Your task to perform on an android device: open app "Google Pay: Save, Pay, Manage" (install if not already installed) Image 0: 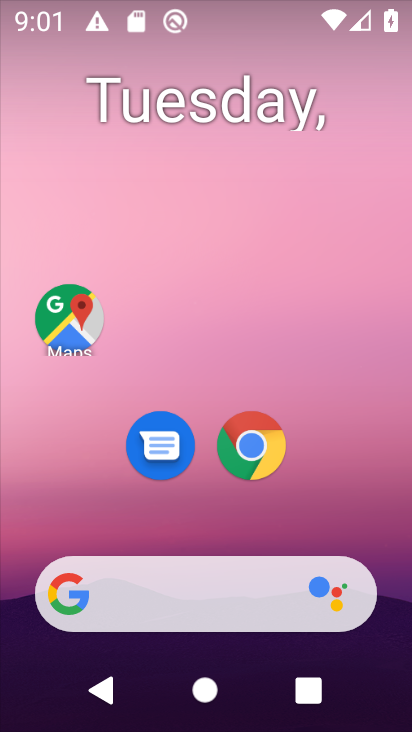
Step 0: click (203, 231)
Your task to perform on an android device: open app "Google Pay: Save, Pay, Manage" (install if not already installed) Image 1: 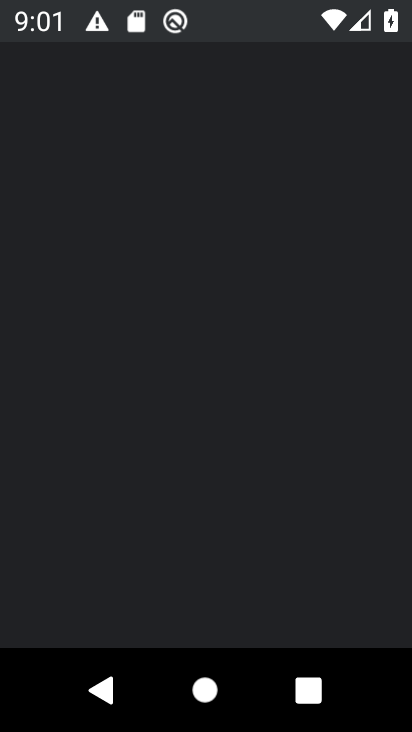
Step 1: press home button
Your task to perform on an android device: open app "Google Pay: Save, Pay, Manage" (install if not already installed) Image 2: 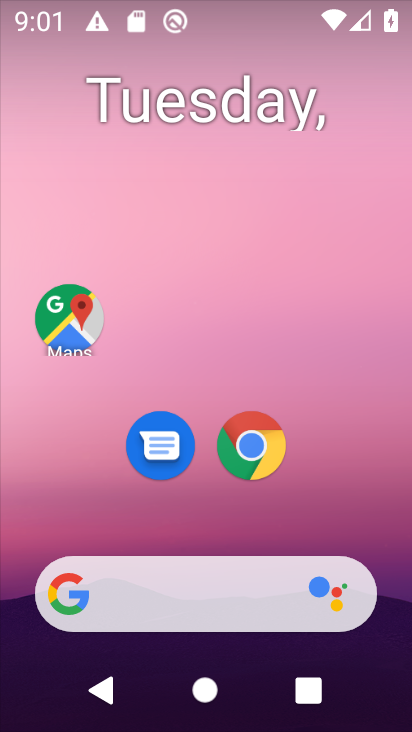
Step 2: drag from (181, 515) to (191, 154)
Your task to perform on an android device: open app "Google Pay: Save, Pay, Manage" (install if not already installed) Image 3: 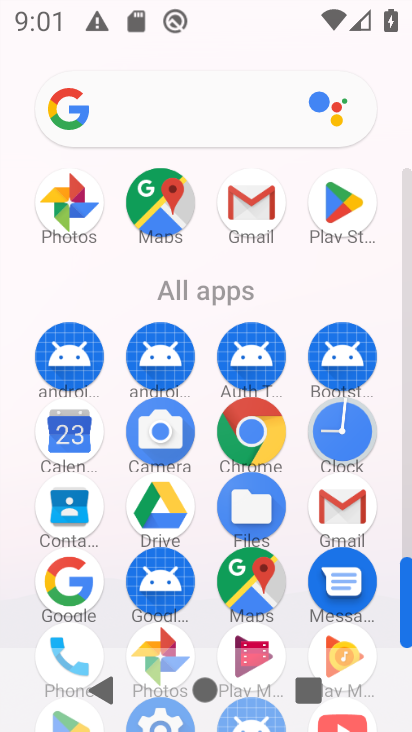
Step 3: click (333, 190)
Your task to perform on an android device: open app "Google Pay: Save, Pay, Manage" (install if not already installed) Image 4: 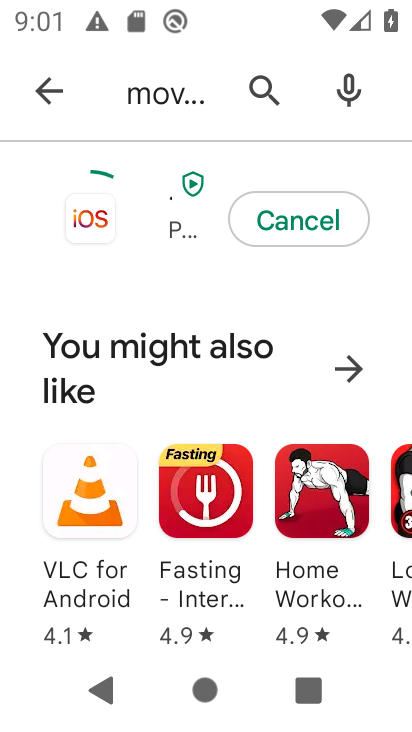
Step 4: click (65, 86)
Your task to perform on an android device: open app "Google Pay: Save, Pay, Manage" (install if not already installed) Image 5: 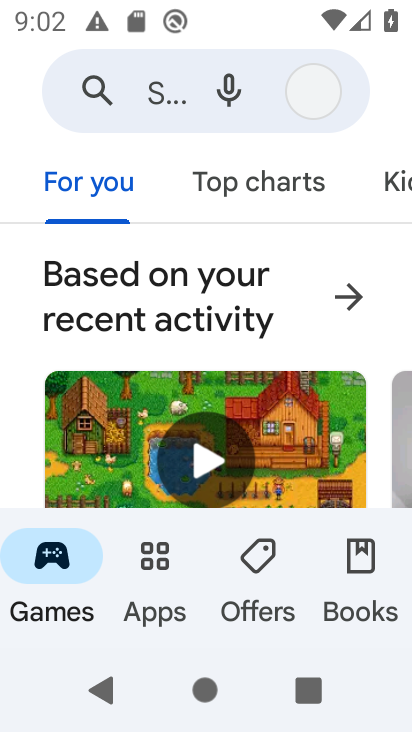
Step 5: click (142, 74)
Your task to perform on an android device: open app "Google Pay: Save, Pay, Manage" (install if not already installed) Image 6: 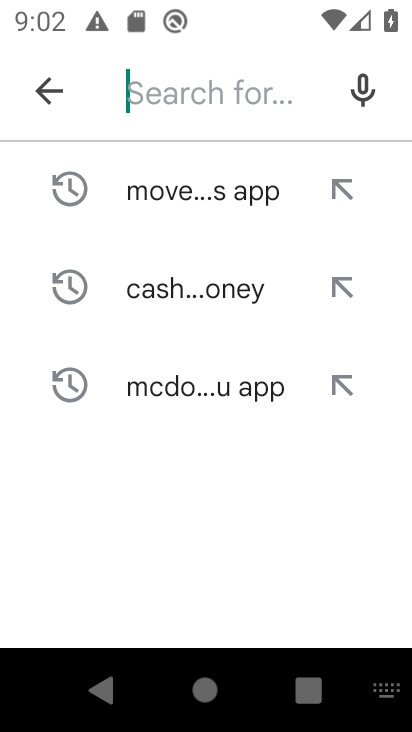
Step 6: click (156, 101)
Your task to perform on an android device: open app "Google Pay: Save, Pay, Manage" (install if not already installed) Image 7: 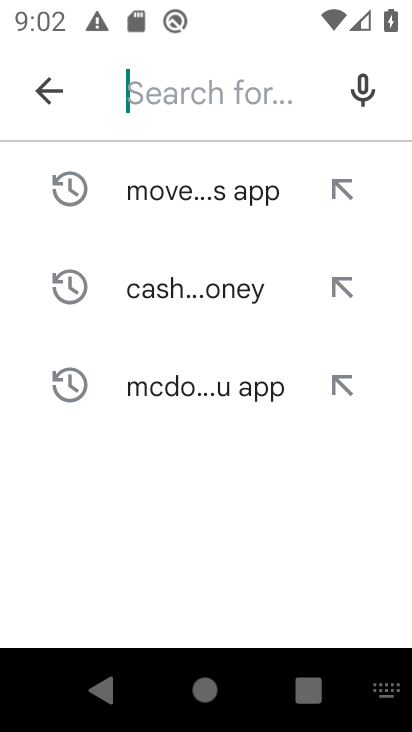
Step 7: type "Google Pay: Save, Pay, Manage "
Your task to perform on an android device: open app "Google Pay: Save, Pay, Manage" (install if not already installed) Image 8: 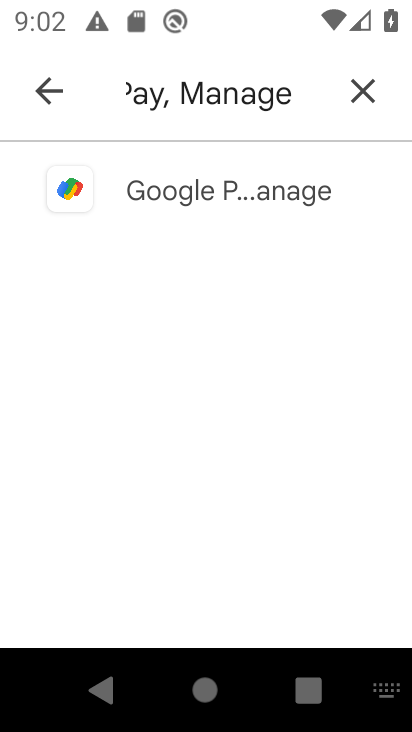
Step 8: click (201, 185)
Your task to perform on an android device: open app "Google Pay: Save, Pay, Manage" (install if not already installed) Image 9: 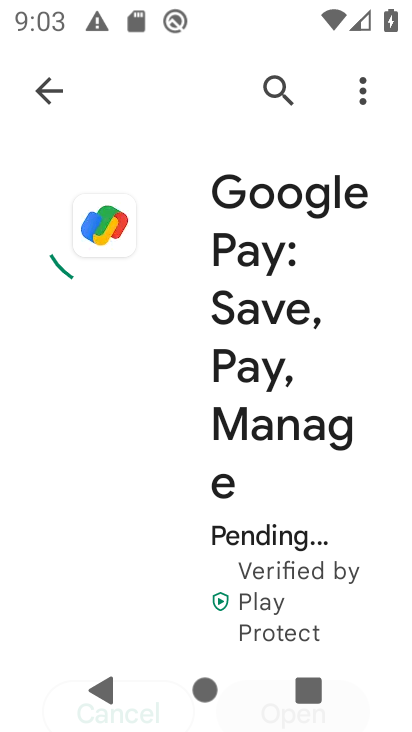
Step 9: task complete